Your task to perform on an android device: turn smart compose on in the gmail app Image 0: 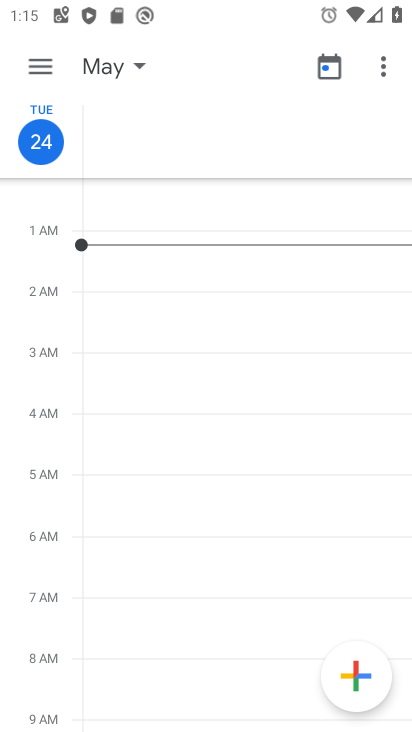
Step 0: press home button
Your task to perform on an android device: turn smart compose on in the gmail app Image 1: 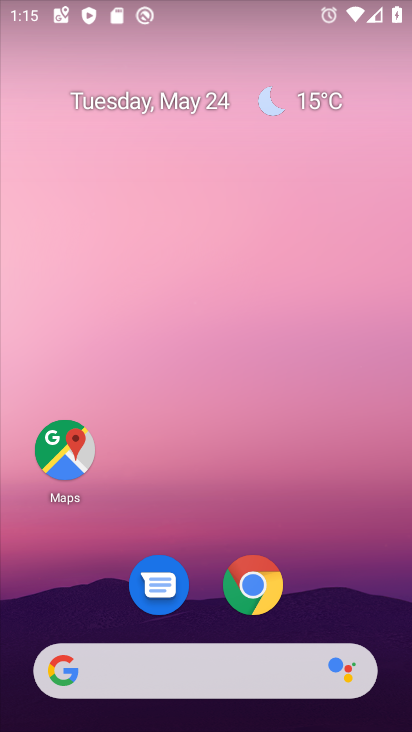
Step 1: drag from (203, 523) to (241, 38)
Your task to perform on an android device: turn smart compose on in the gmail app Image 2: 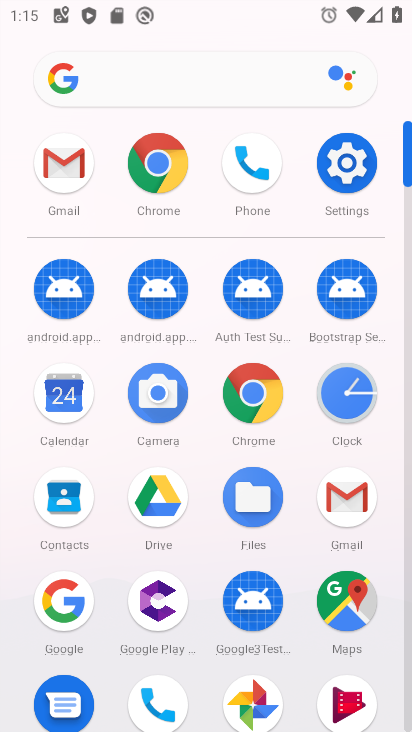
Step 2: click (348, 505)
Your task to perform on an android device: turn smart compose on in the gmail app Image 3: 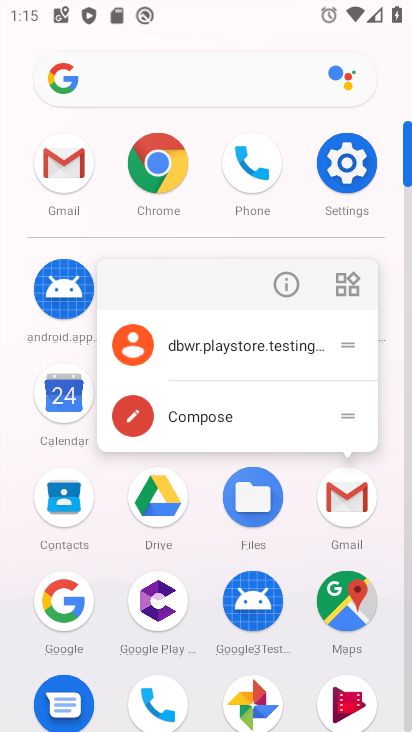
Step 3: click (348, 497)
Your task to perform on an android device: turn smart compose on in the gmail app Image 4: 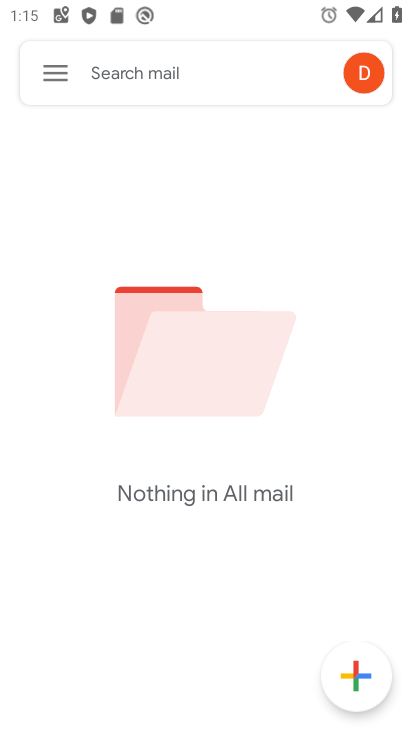
Step 4: click (64, 75)
Your task to perform on an android device: turn smart compose on in the gmail app Image 5: 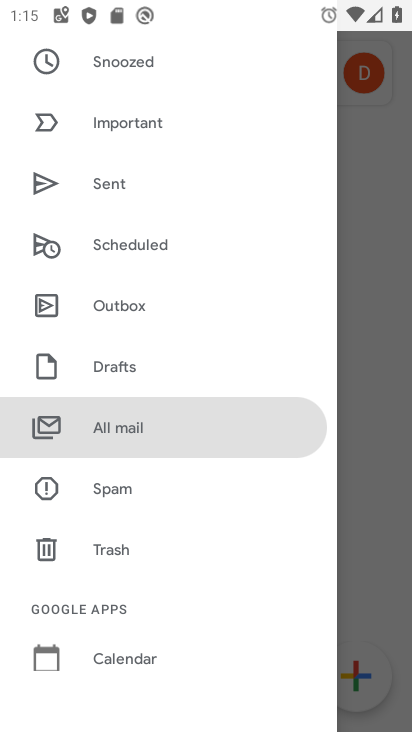
Step 5: drag from (200, 537) to (229, 166)
Your task to perform on an android device: turn smart compose on in the gmail app Image 6: 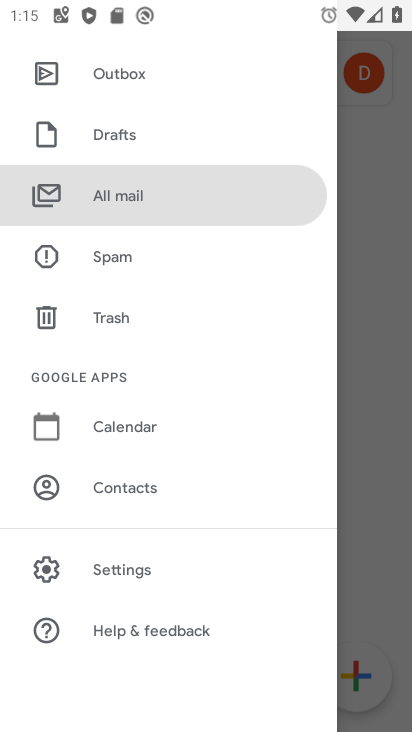
Step 6: click (180, 569)
Your task to perform on an android device: turn smart compose on in the gmail app Image 7: 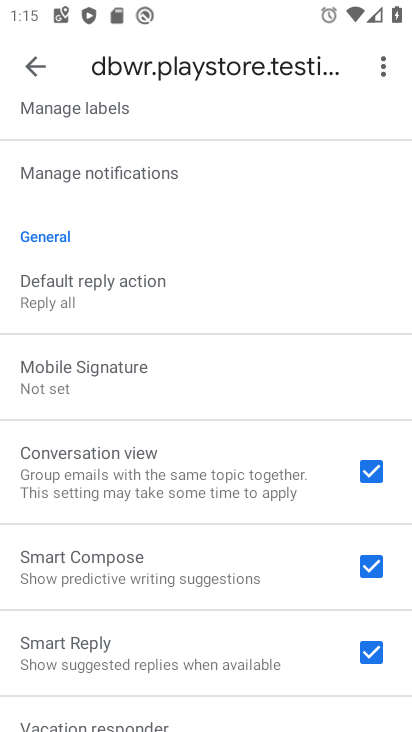
Step 7: task complete